Your task to perform on an android device: clear all cookies in the chrome app Image 0: 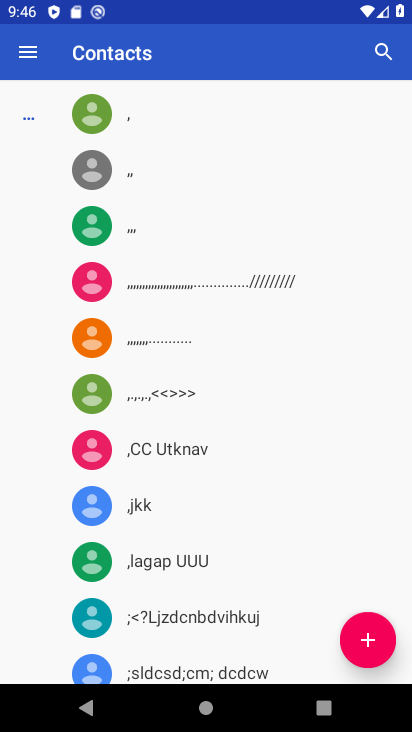
Step 0: press home button
Your task to perform on an android device: clear all cookies in the chrome app Image 1: 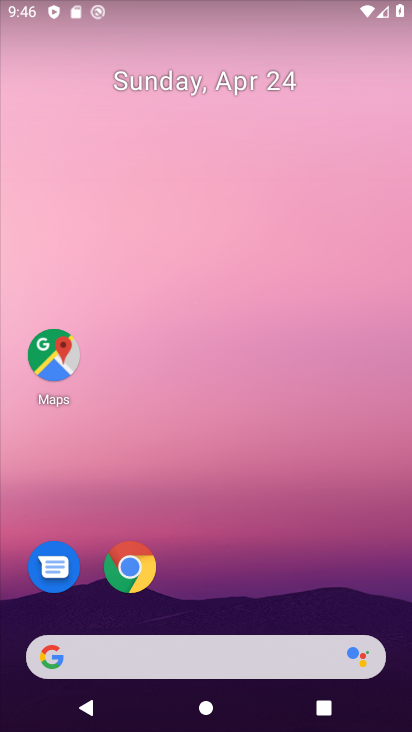
Step 1: click (135, 572)
Your task to perform on an android device: clear all cookies in the chrome app Image 2: 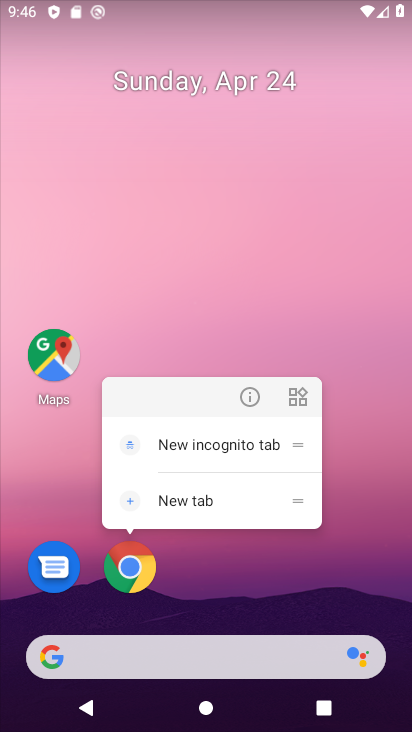
Step 2: click (247, 392)
Your task to perform on an android device: clear all cookies in the chrome app Image 3: 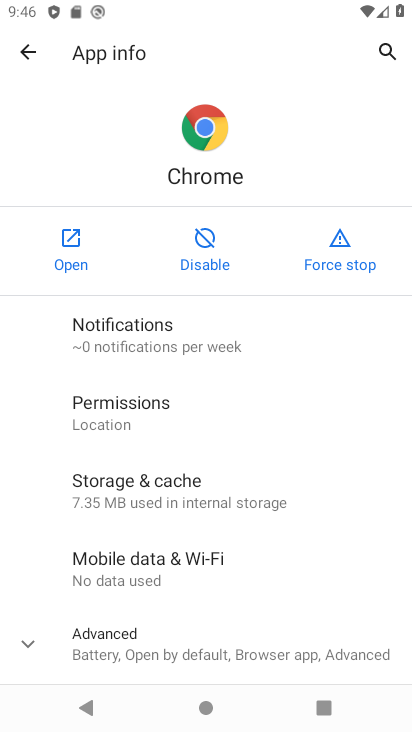
Step 3: click (72, 247)
Your task to perform on an android device: clear all cookies in the chrome app Image 4: 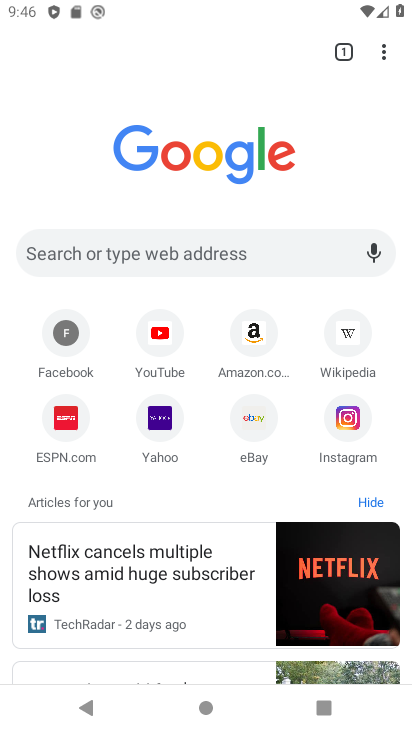
Step 4: click (383, 30)
Your task to perform on an android device: clear all cookies in the chrome app Image 5: 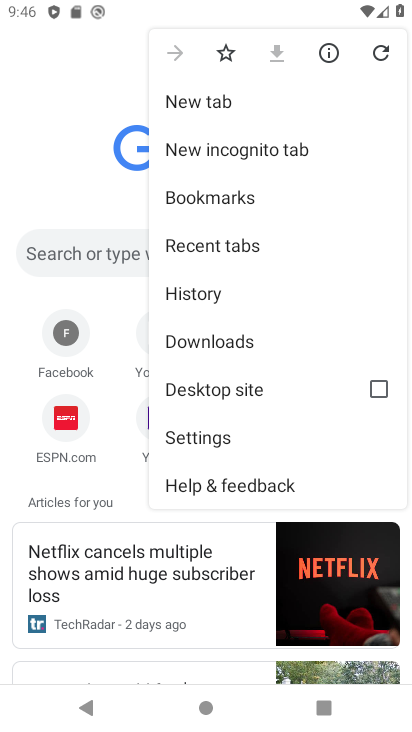
Step 5: click (168, 430)
Your task to perform on an android device: clear all cookies in the chrome app Image 6: 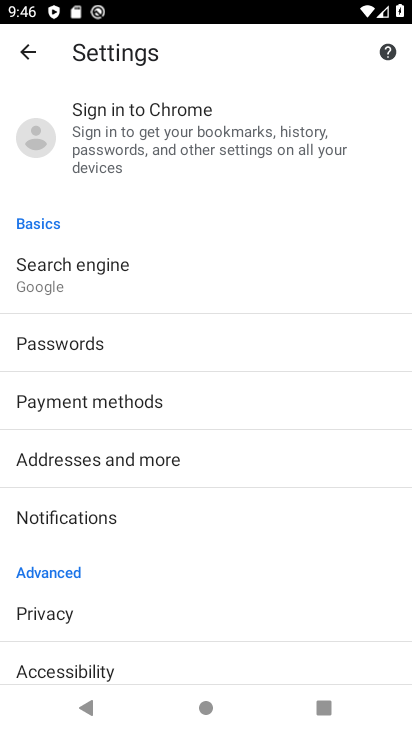
Step 6: drag from (227, 661) to (317, 401)
Your task to perform on an android device: clear all cookies in the chrome app Image 7: 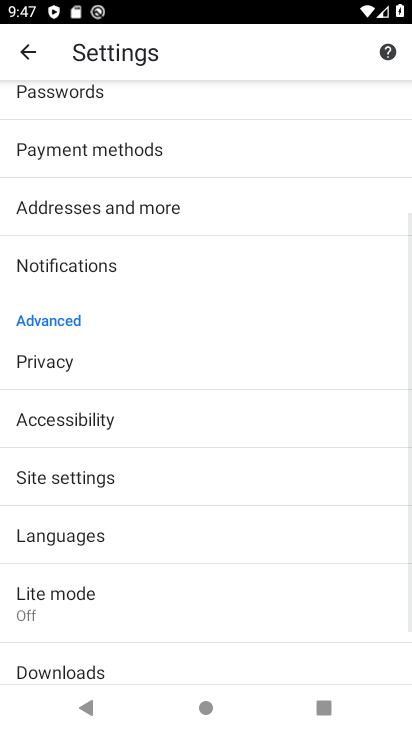
Step 7: click (126, 374)
Your task to perform on an android device: clear all cookies in the chrome app Image 8: 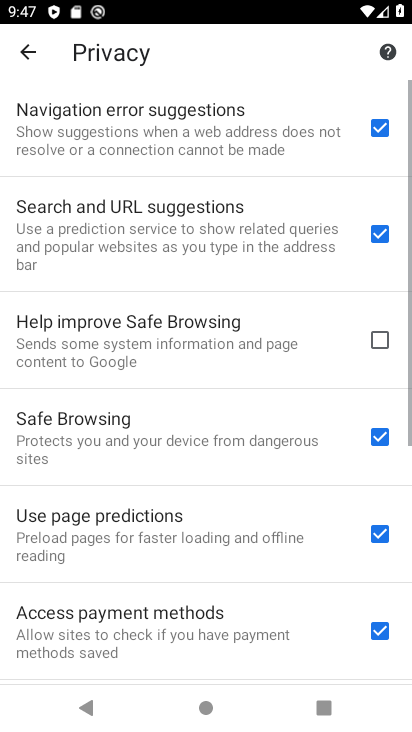
Step 8: drag from (87, 579) to (280, 210)
Your task to perform on an android device: clear all cookies in the chrome app Image 9: 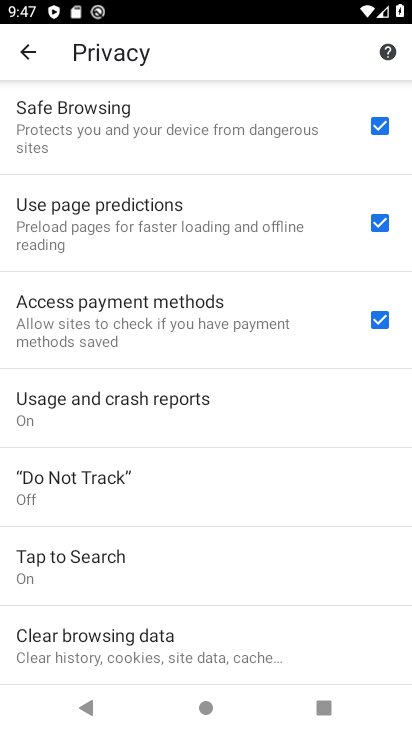
Step 9: click (108, 651)
Your task to perform on an android device: clear all cookies in the chrome app Image 10: 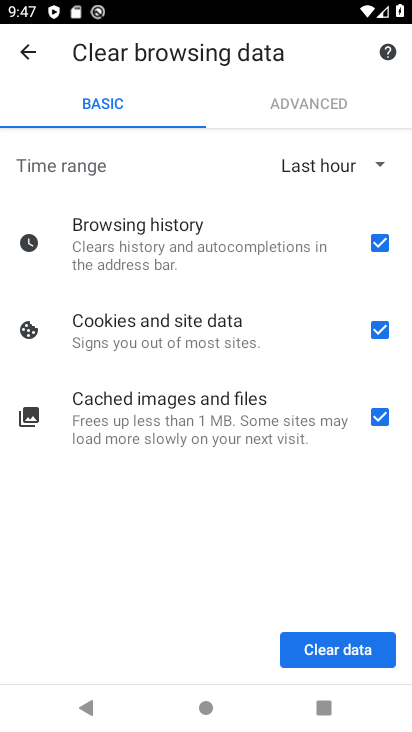
Step 10: click (381, 422)
Your task to perform on an android device: clear all cookies in the chrome app Image 11: 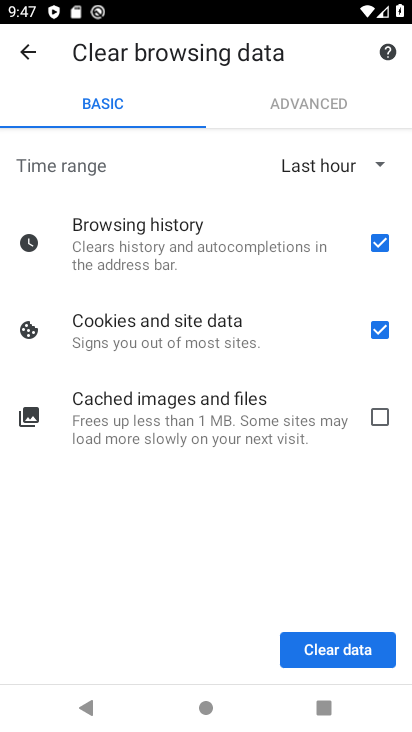
Step 11: click (380, 238)
Your task to perform on an android device: clear all cookies in the chrome app Image 12: 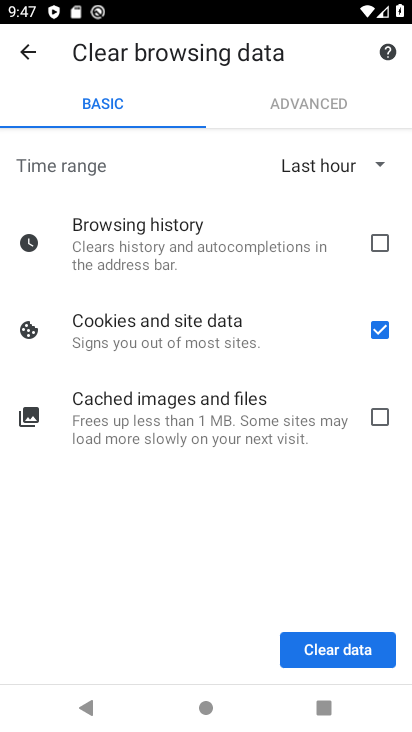
Step 12: click (340, 655)
Your task to perform on an android device: clear all cookies in the chrome app Image 13: 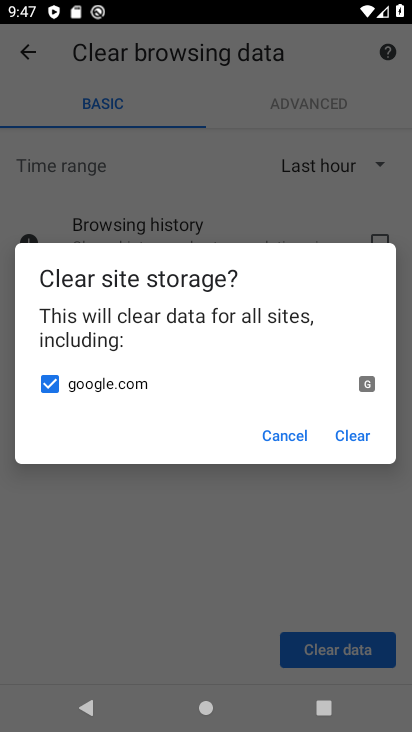
Step 13: click (348, 431)
Your task to perform on an android device: clear all cookies in the chrome app Image 14: 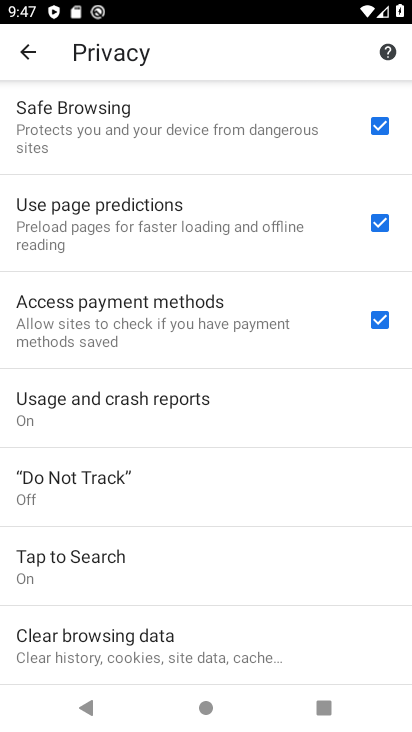
Step 14: task complete